Your task to perform on an android device: toggle location history Image 0: 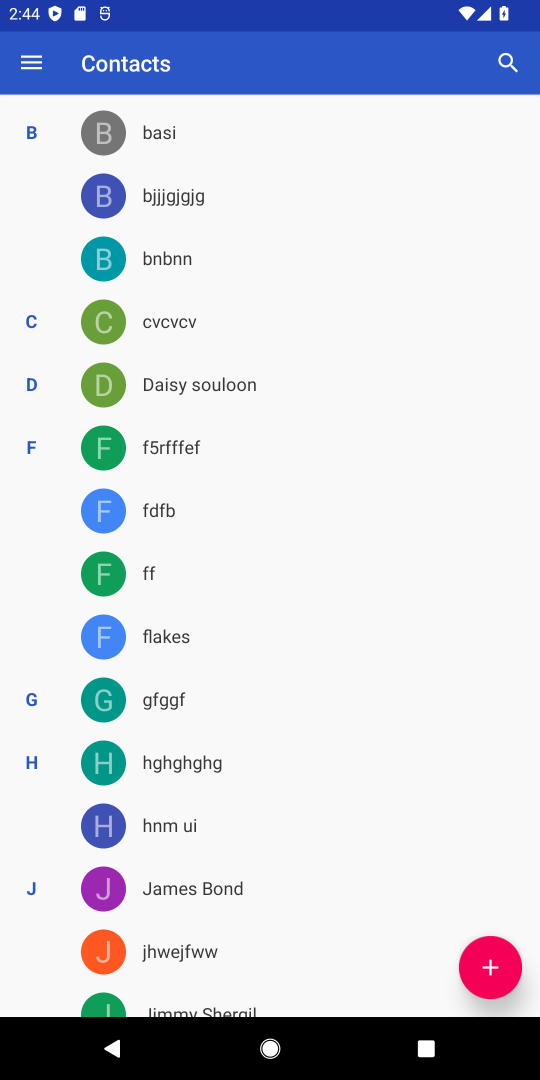
Step 0: press home button
Your task to perform on an android device: toggle location history Image 1: 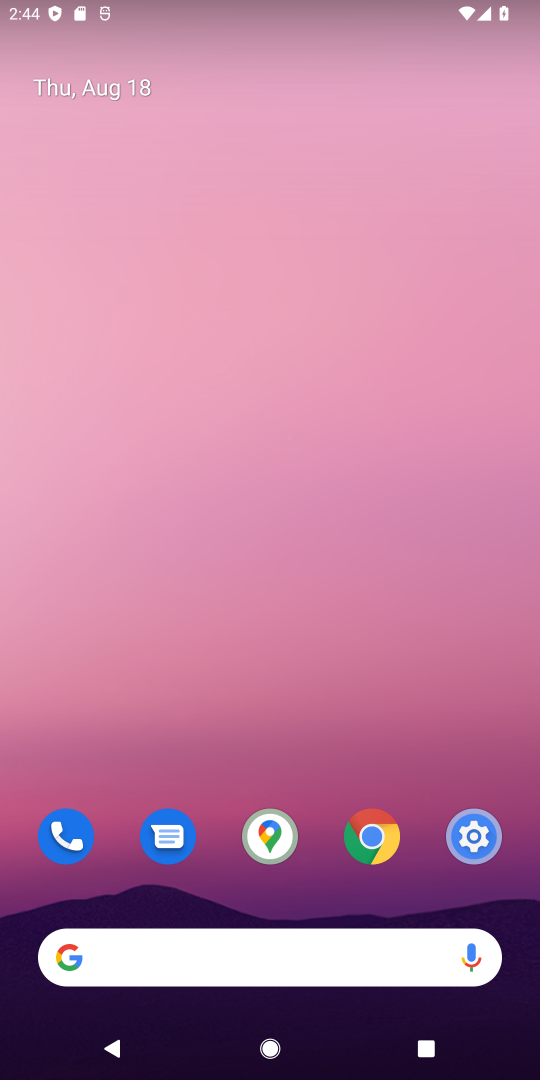
Step 1: drag from (174, 945) to (221, 195)
Your task to perform on an android device: toggle location history Image 2: 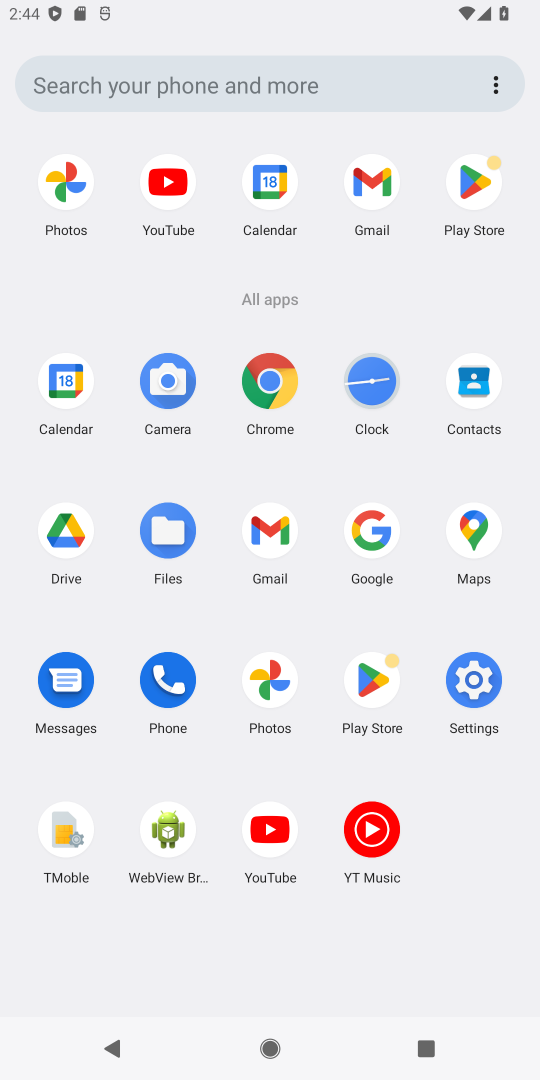
Step 2: click (469, 670)
Your task to perform on an android device: toggle location history Image 3: 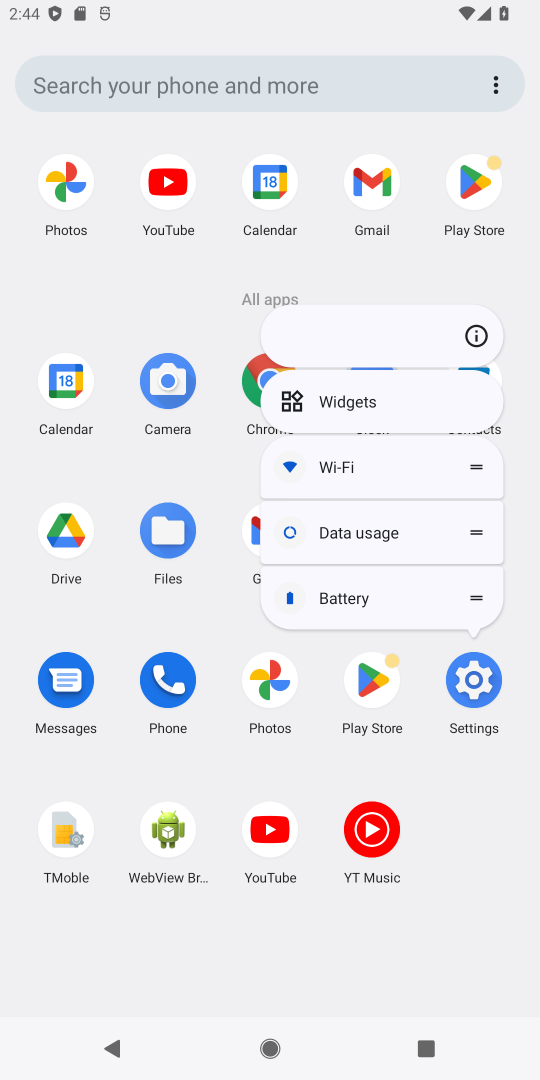
Step 3: click (469, 670)
Your task to perform on an android device: toggle location history Image 4: 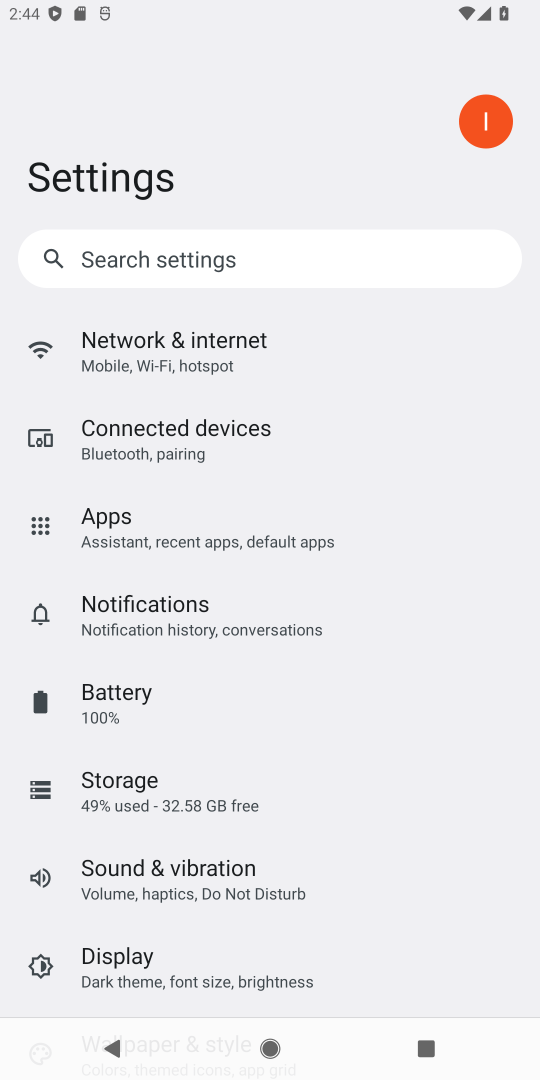
Step 4: drag from (212, 891) to (353, 311)
Your task to perform on an android device: toggle location history Image 5: 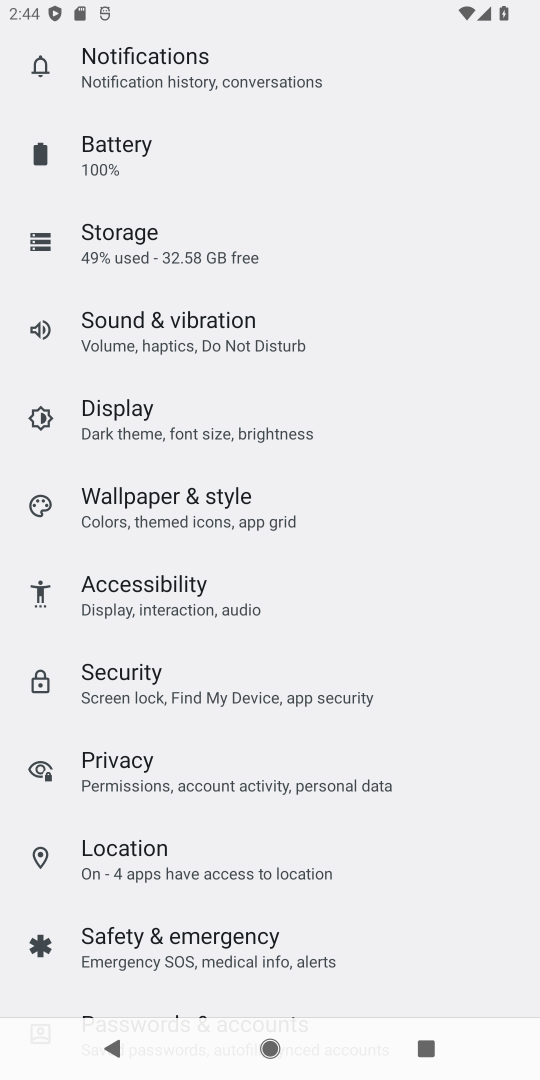
Step 5: click (155, 850)
Your task to perform on an android device: toggle location history Image 6: 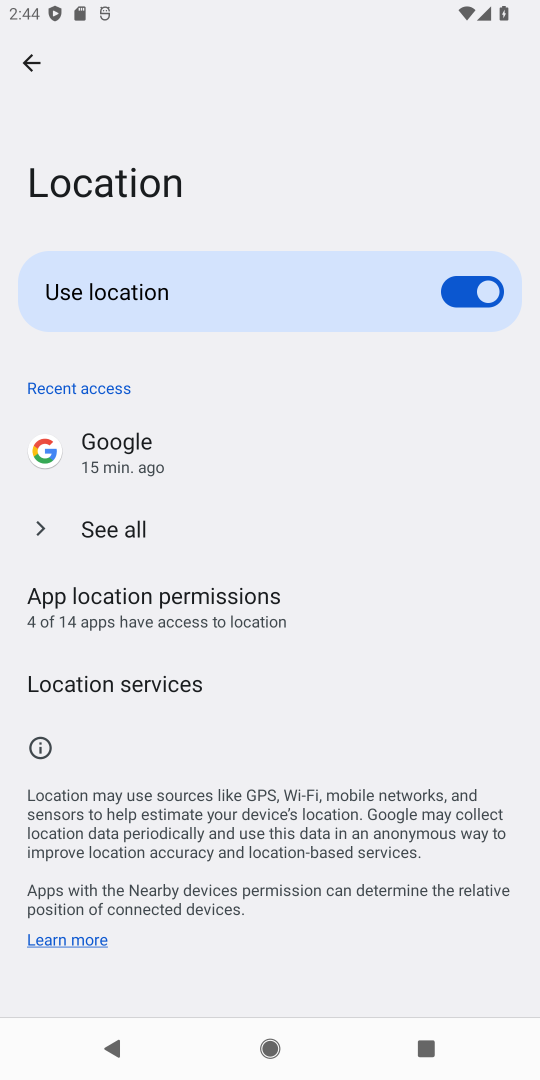
Step 6: click (86, 675)
Your task to perform on an android device: toggle location history Image 7: 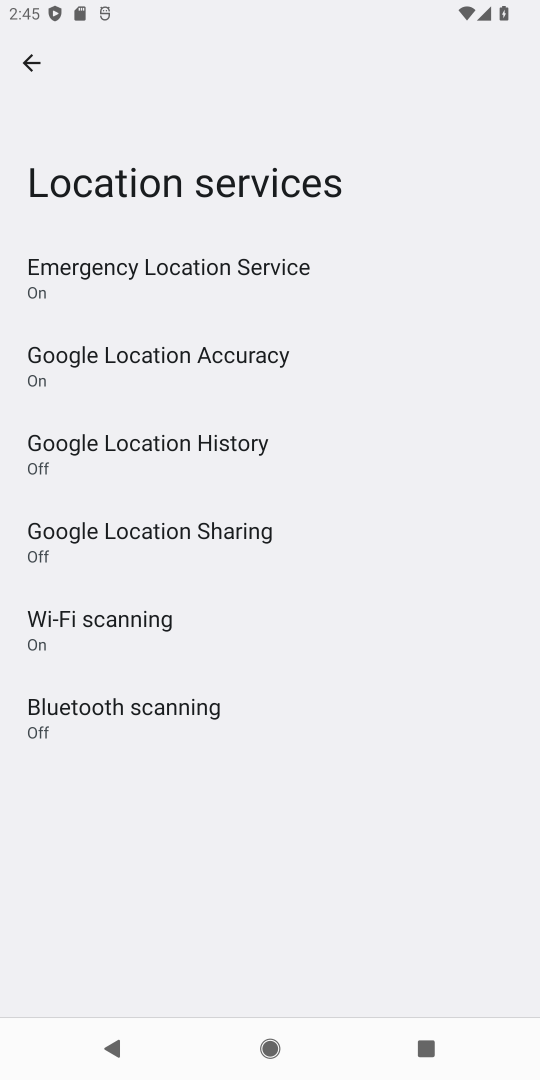
Step 7: click (249, 441)
Your task to perform on an android device: toggle location history Image 8: 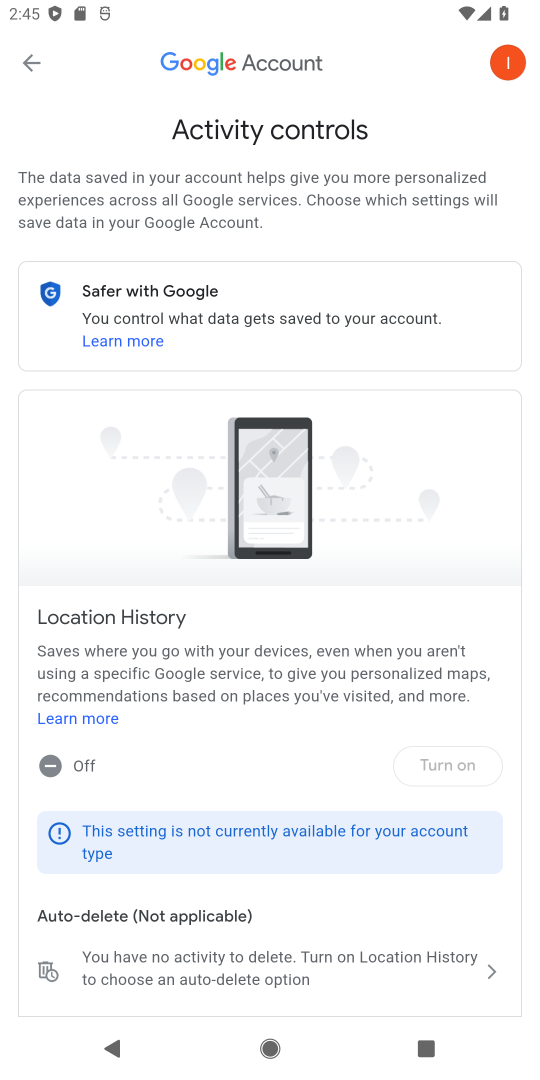
Step 8: click (99, 761)
Your task to perform on an android device: toggle location history Image 9: 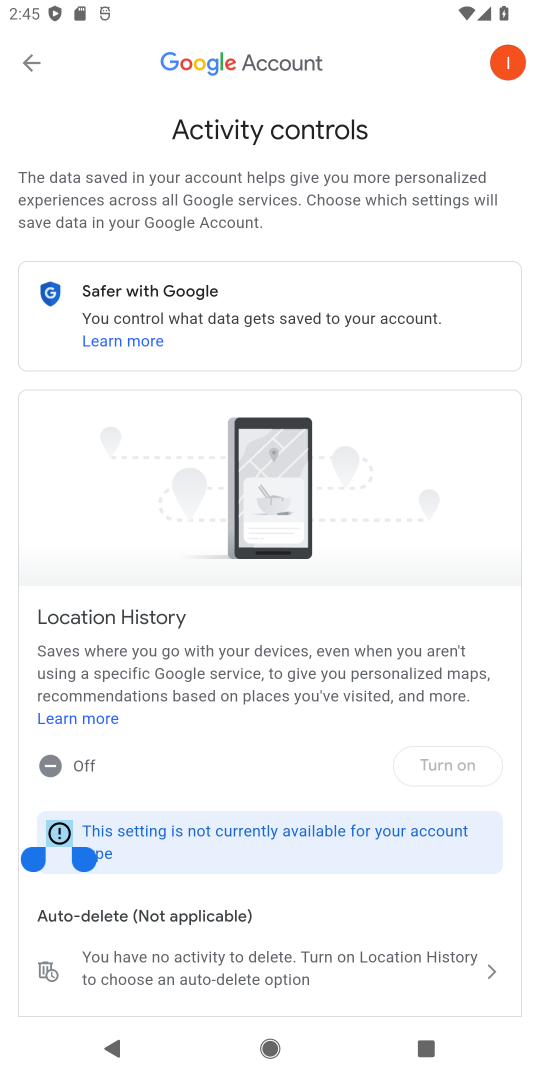
Step 9: click (99, 761)
Your task to perform on an android device: toggle location history Image 10: 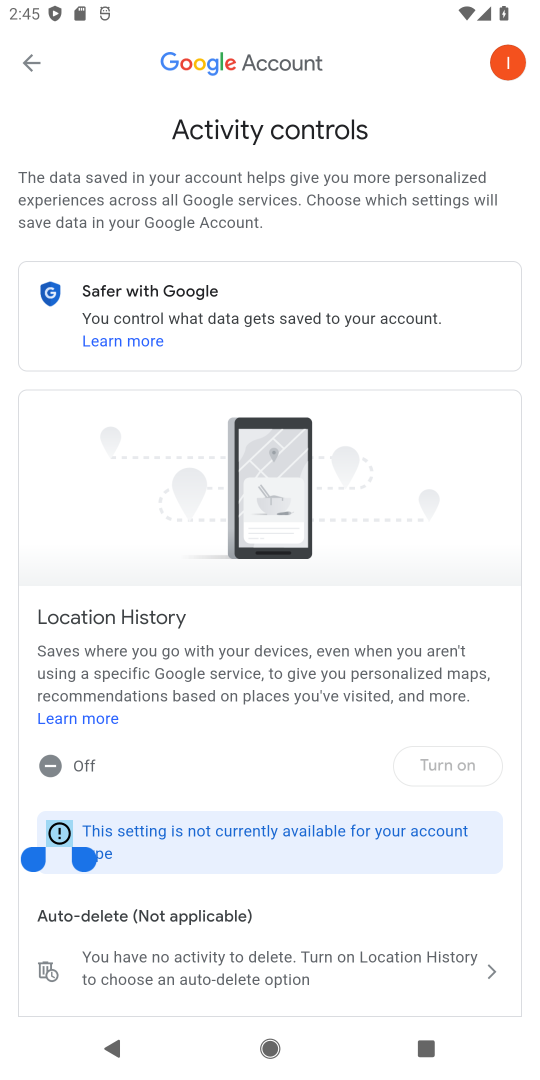
Step 10: click (70, 757)
Your task to perform on an android device: toggle location history Image 11: 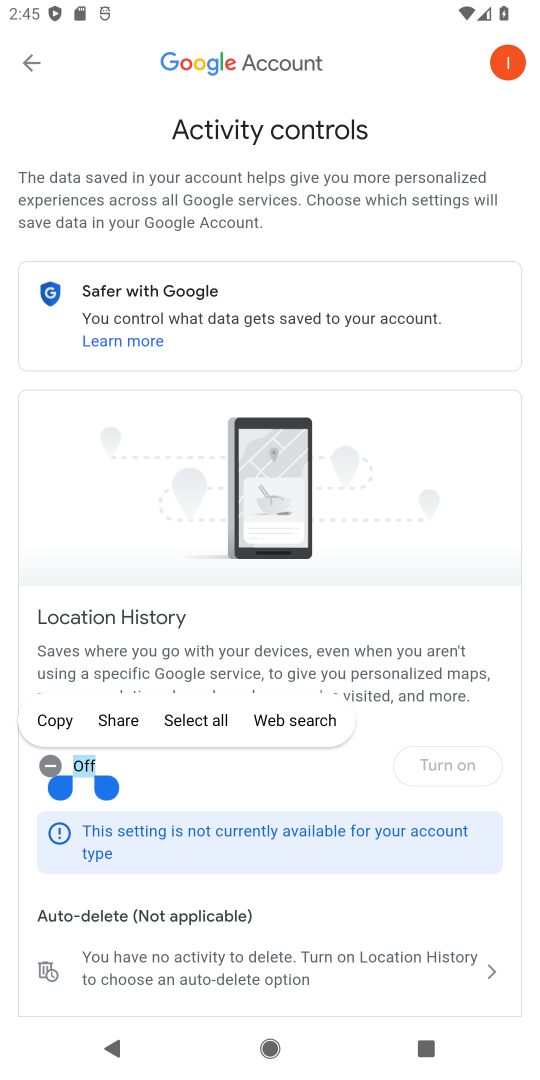
Step 11: click (230, 777)
Your task to perform on an android device: toggle location history Image 12: 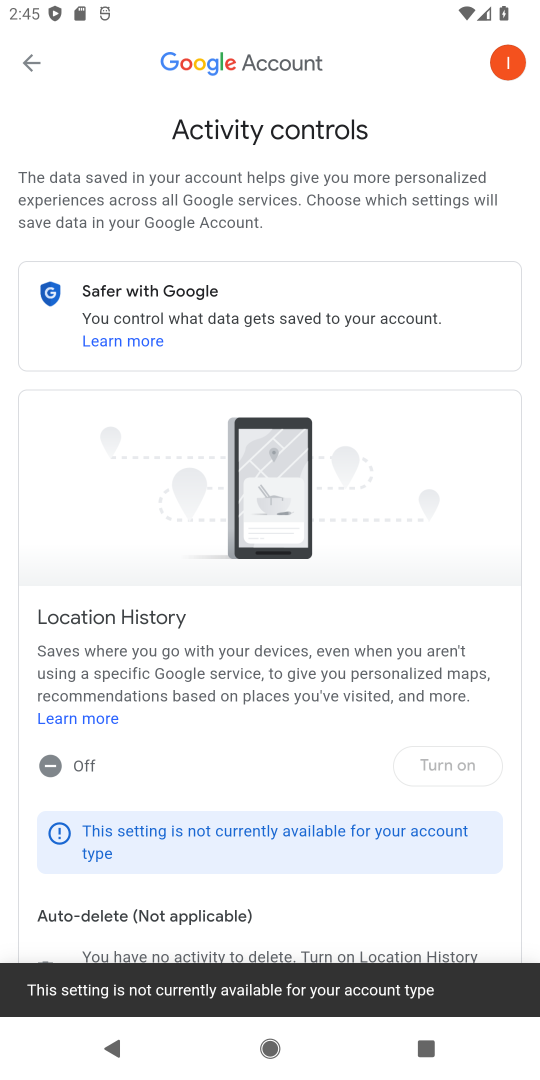
Step 12: click (82, 759)
Your task to perform on an android device: toggle location history Image 13: 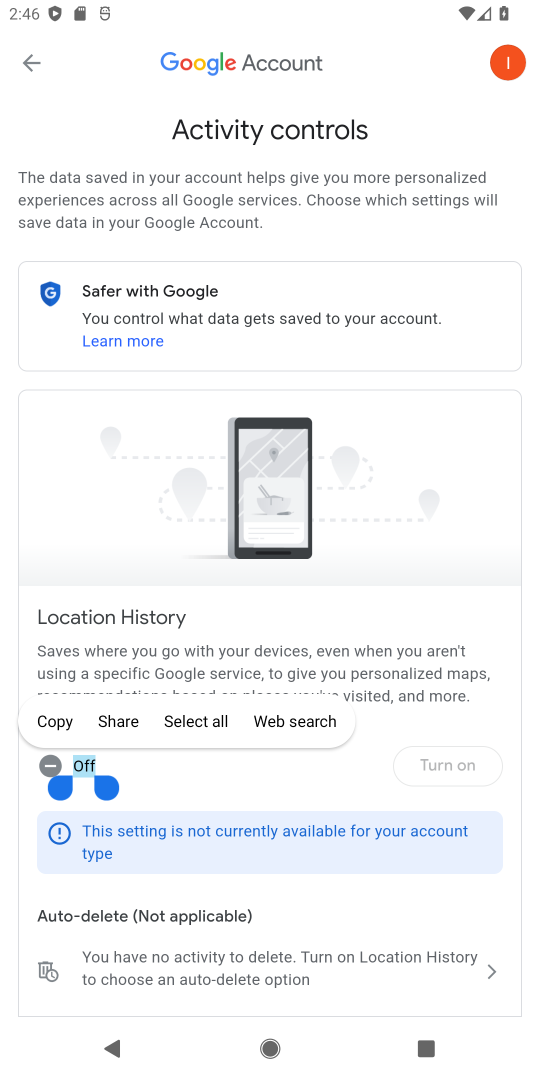
Step 13: task complete